Your task to perform on an android device: toggle airplane mode Image 0: 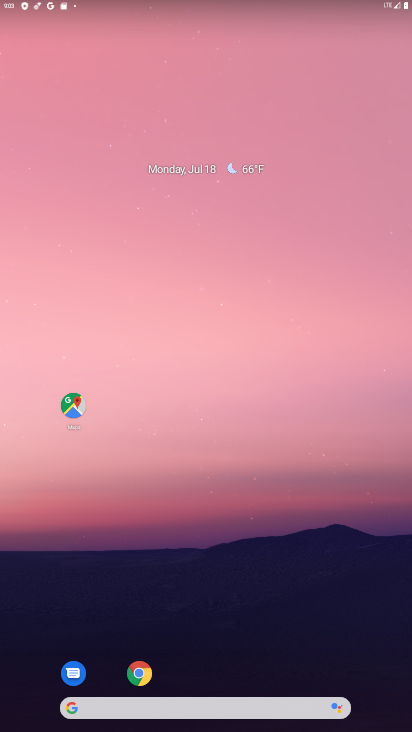
Step 0: drag from (239, 640) to (309, 117)
Your task to perform on an android device: toggle airplane mode Image 1: 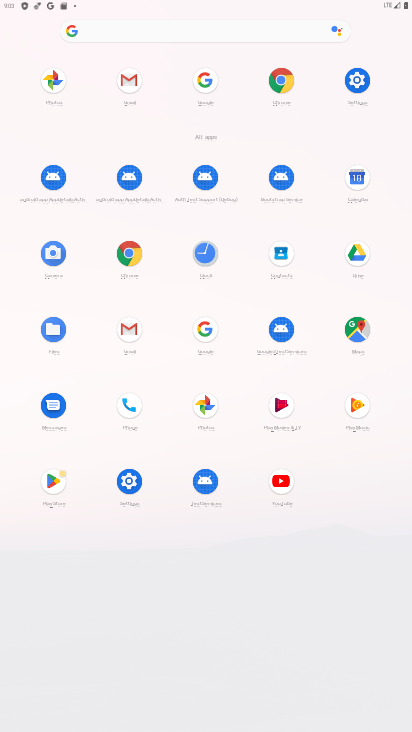
Step 1: click (353, 83)
Your task to perform on an android device: toggle airplane mode Image 2: 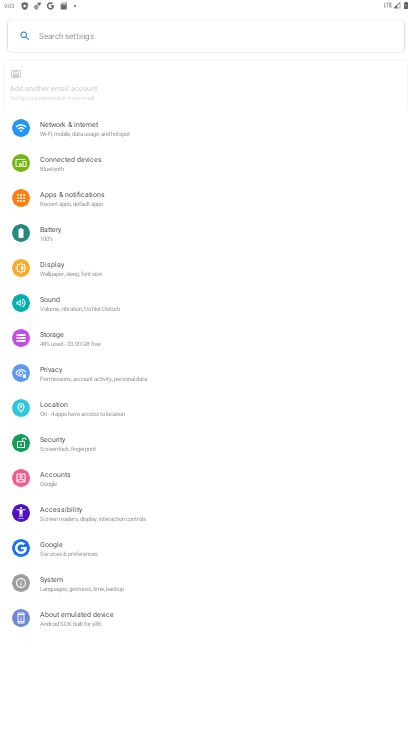
Step 2: drag from (85, 141) to (64, 461)
Your task to perform on an android device: toggle airplane mode Image 3: 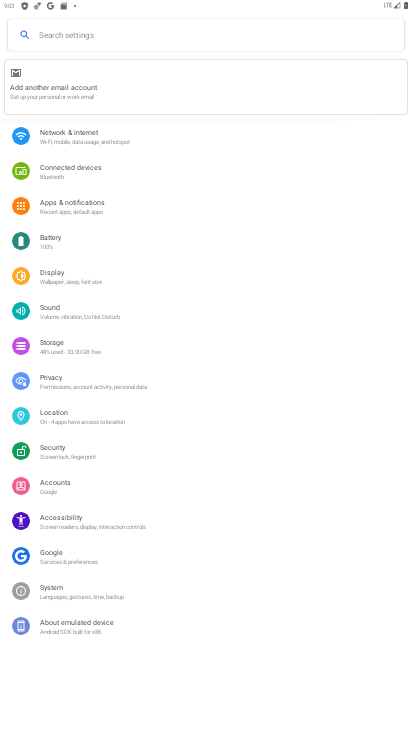
Step 3: click (77, 134)
Your task to perform on an android device: toggle airplane mode Image 4: 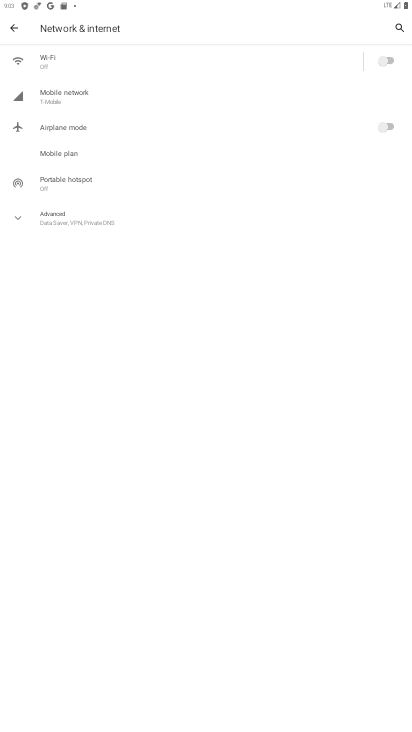
Step 4: click (389, 133)
Your task to perform on an android device: toggle airplane mode Image 5: 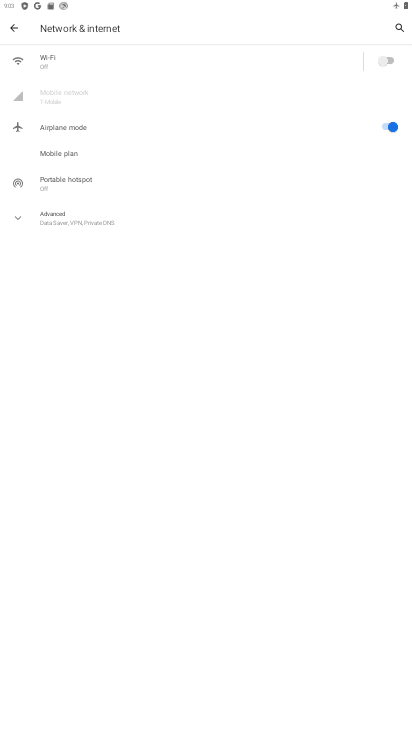
Step 5: task complete